Your task to perform on an android device: What is the news today? Image 0: 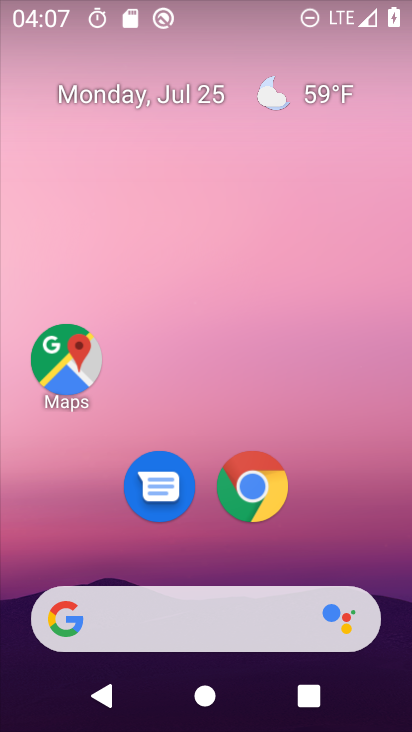
Step 0: click (191, 629)
Your task to perform on an android device: What is the news today? Image 1: 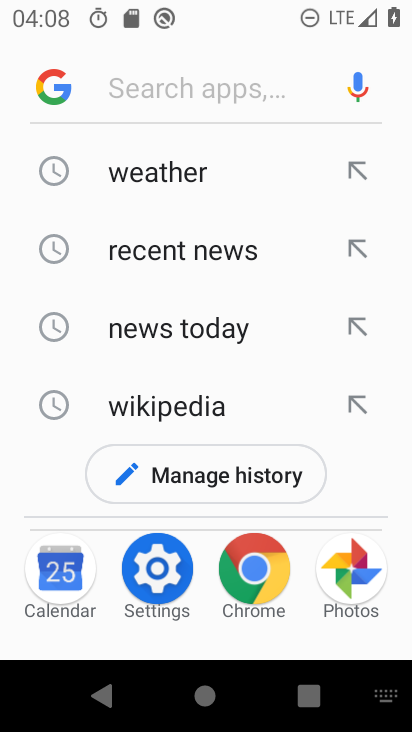
Step 1: click (161, 95)
Your task to perform on an android device: What is the news today? Image 2: 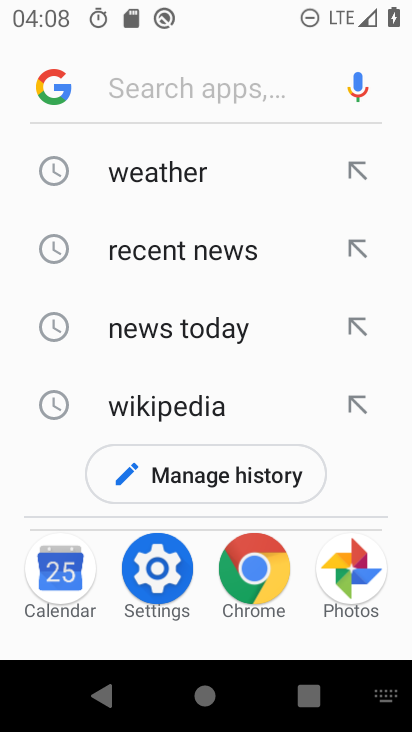
Step 2: type "news today"
Your task to perform on an android device: What is the news today? Image 3: 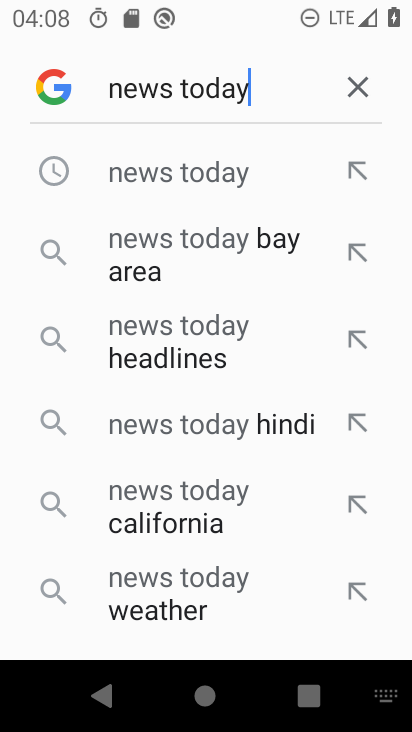
Step 3: click (167, 160)
Your task to perform on an android device: What is the news today? Image 4: 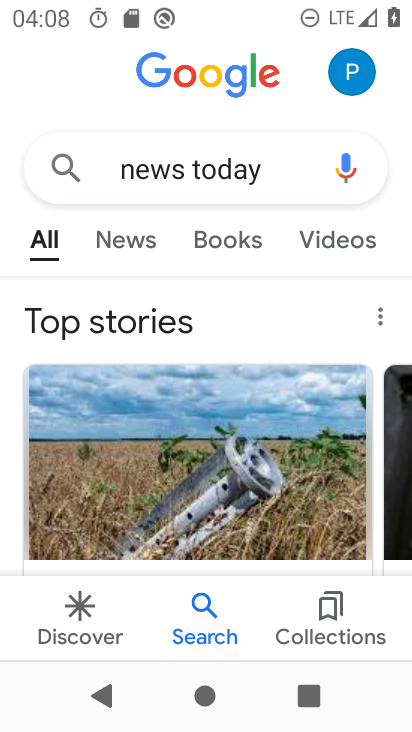
Step 4: task complete